Your task to perform on an android device: turn on javascript in the chrome app Image 0: 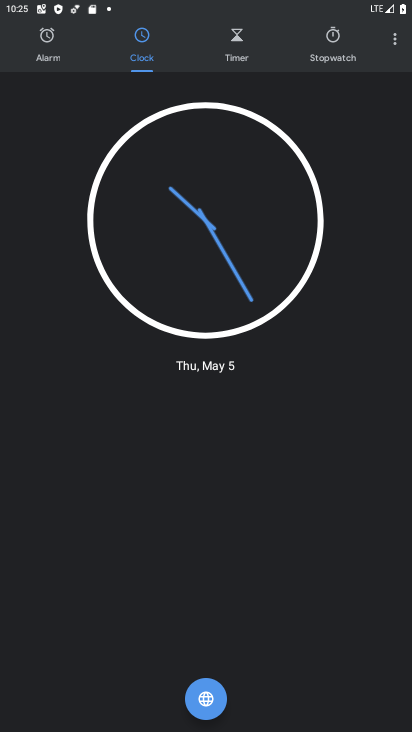
Step 0: press home button
Your task to perform on an android device: turn on javascript in the chrome app Image 1: 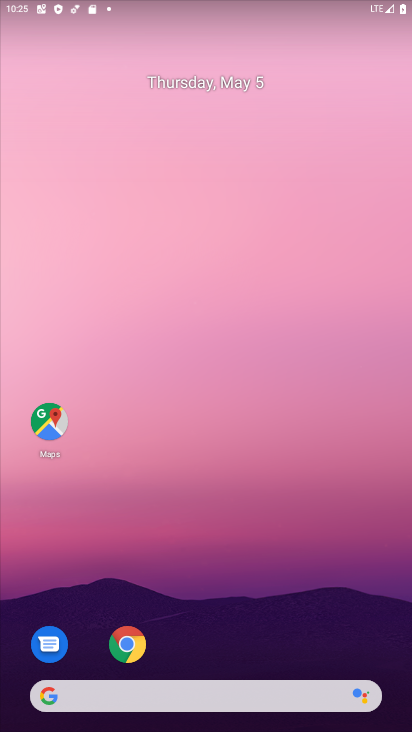
Step 1: click (129, 654)
Your task to perform on an android device: turn on javascript in the chrome app Image 2: 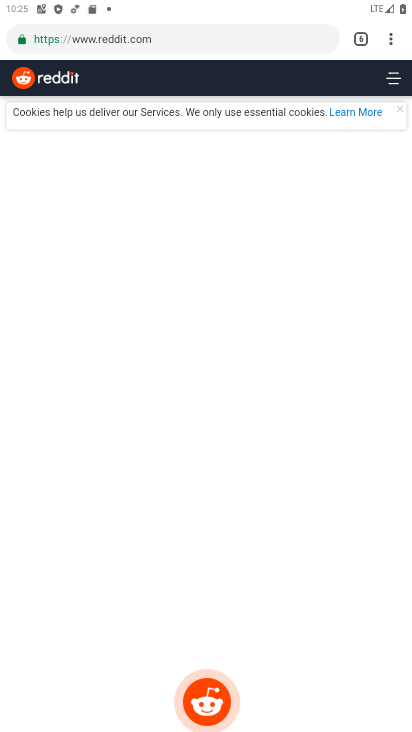
Step 2: click (129, 654)
Your task to perform on an android device: turn on javascript in the chrome app Image 3: 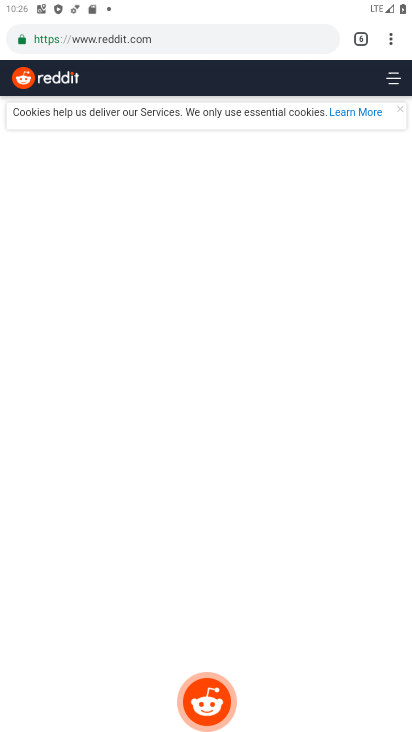
Step 3: click (389, 41)
Your task to perform on an android device: turn on javascript in the chrome app Image 4: 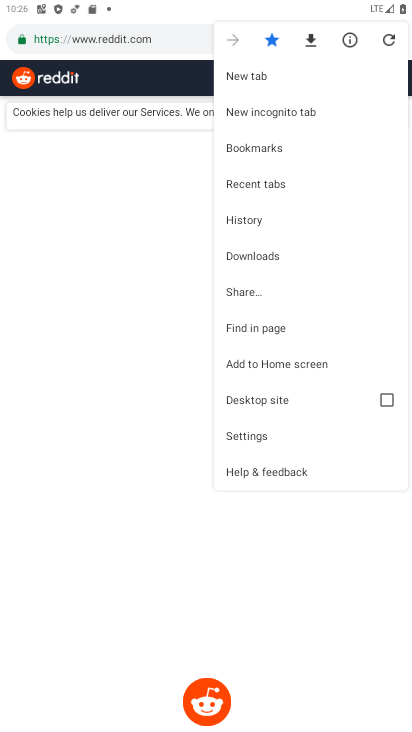
Step 4: click (273, 436)
Your task to perform on an android device: turn on javascript in the chrome app Image 5: 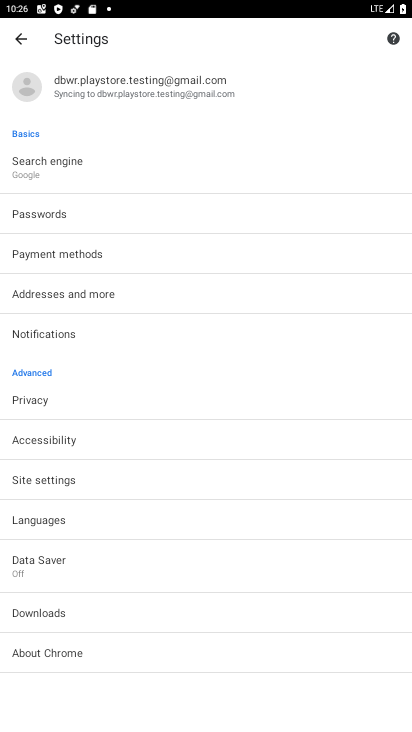
Step 5: click (43, 396)
Your task to perform on an android device: turn on javascript in the chrome app Image 6: 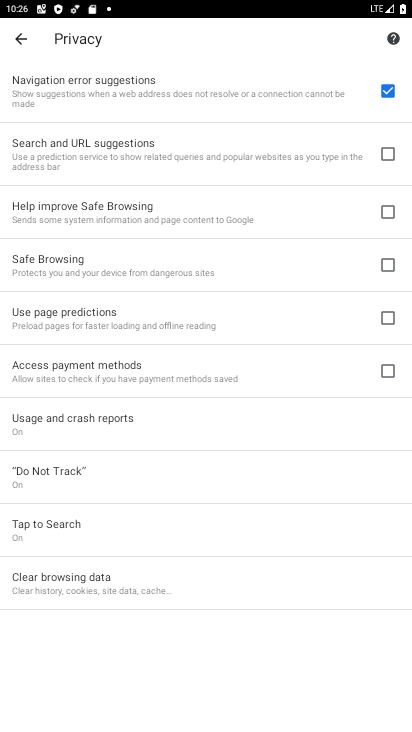
Step 6: click (22, 38)
Your task to perform on an android device: turn on javascript in the chrome app Image 7: 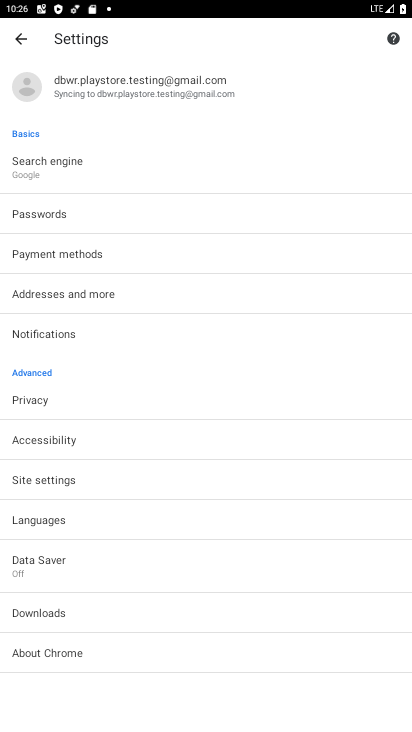
Step 7: click (27, 479)
Your task to perform on an android device: turn on javascript in the chrome app Image 8: 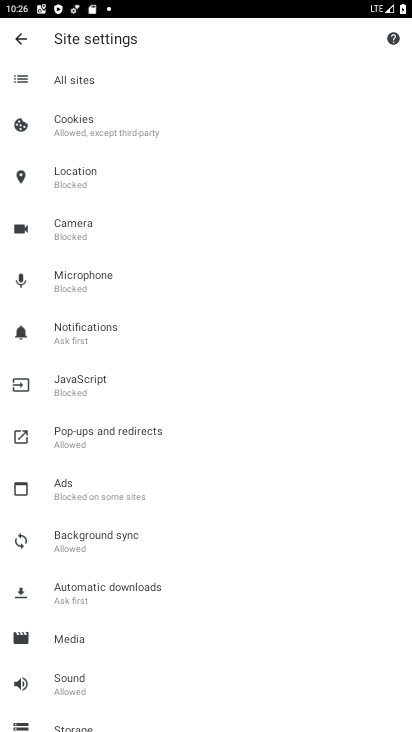
Step 8: click (61, 393)
Your task to perform on an android device: turn on javascript in the chrome app Image 9: 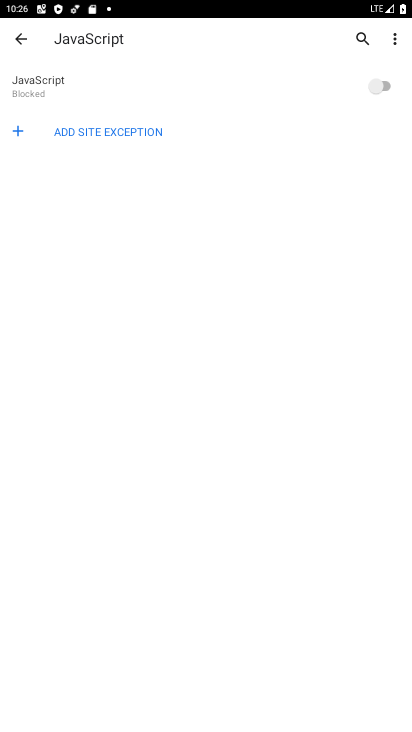
Step 9: click (376, 89)
Your task to perform on an android device: turn on javascript in the chrome app Image 10: 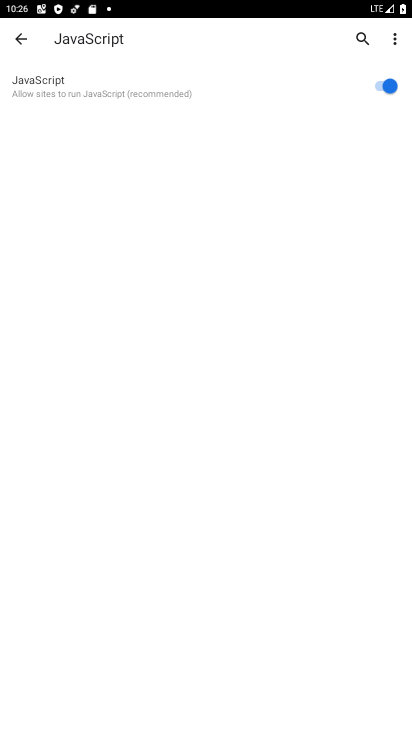
Step 10: task complete